Your task to perform on an android device: turn off picture-in-picture Image 0: 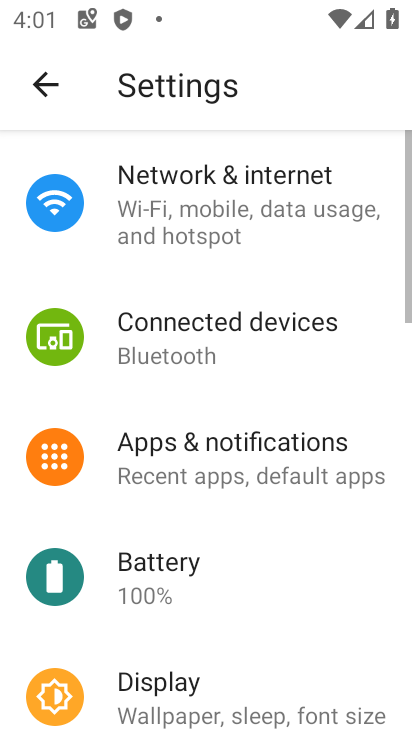
Step 0: press back button
Your task to perform on an android device: turn off picture-in-picture Image 1: 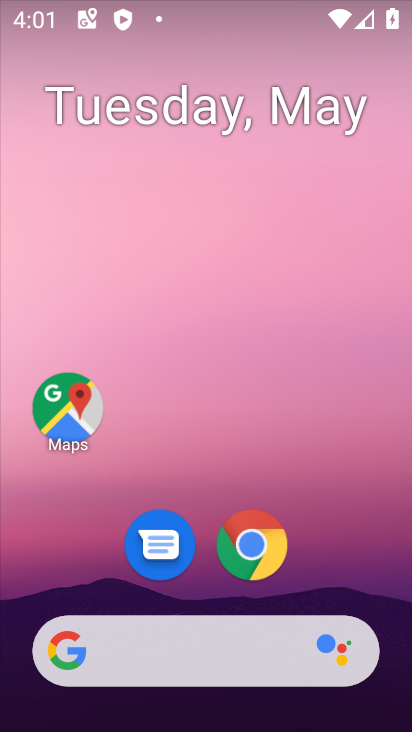
Step 1: click (250, 547)
Your task to perform on an android device: turn off picture-in-picture Image 2: 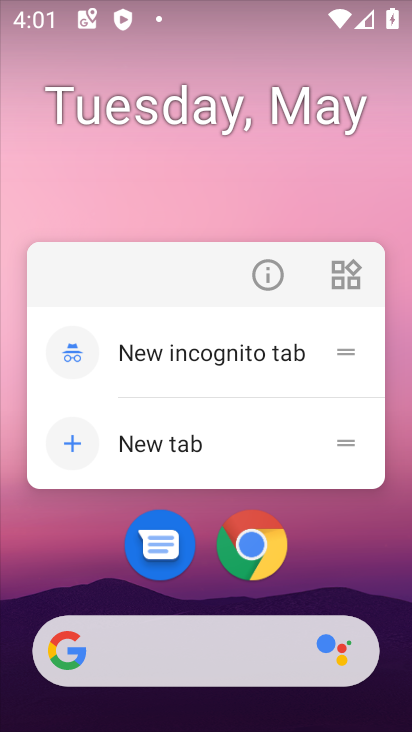
Step 2: click (271, 279)
Your task to perform on an android device: turn off picture-in-picture Image 3: 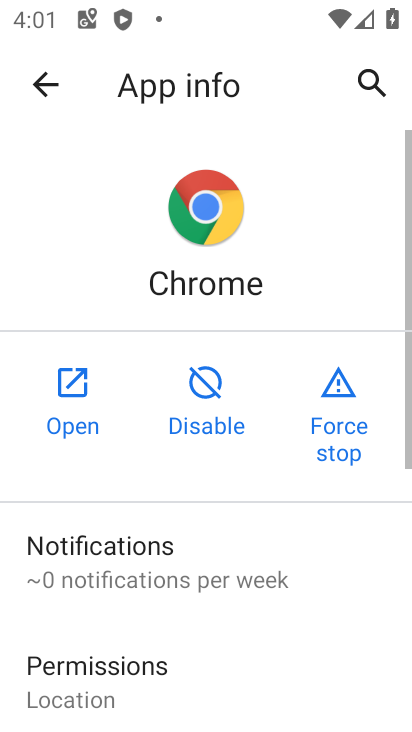
Step 3: drag from (186, 617) to (237, 446)
Your task to perform on an android device: turn off picture-in-picture Image 4: 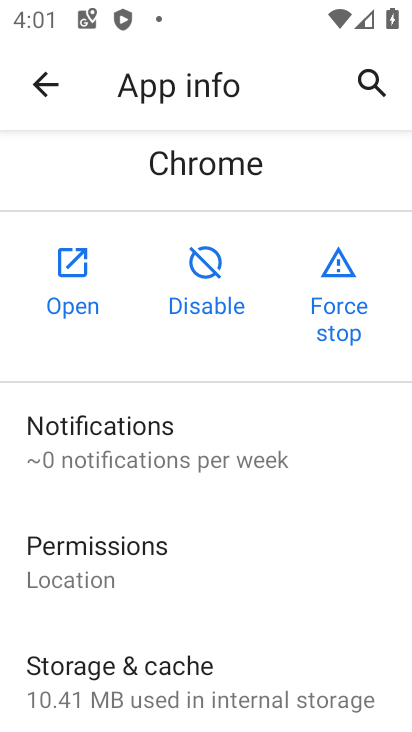
Step 4: drag from (166, 617) to (237, 467)
Your task to perform on an android device: turn off picture-in-picture Image 5: 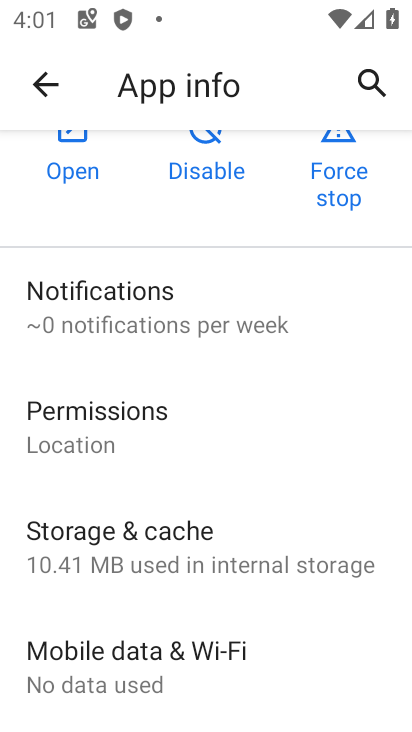
Step 5: drag from (146, 627) to (245, 462)
Your task to perform on an android device: turn off picture-in-picture Image 6: 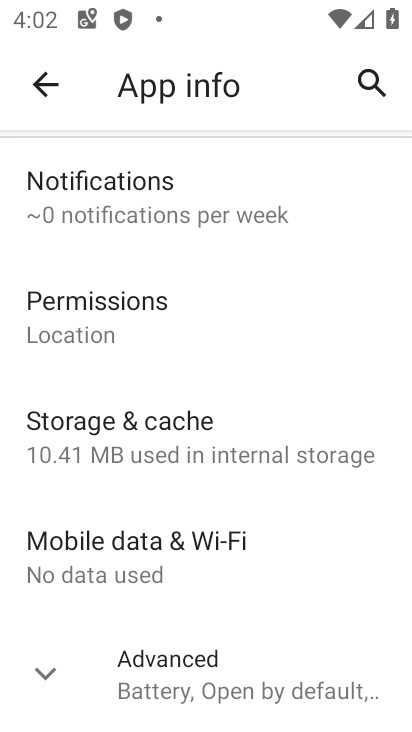
Step 6: click (183, 679)
Your task to perform on an android device: turn off picture-in-picture Image 7: 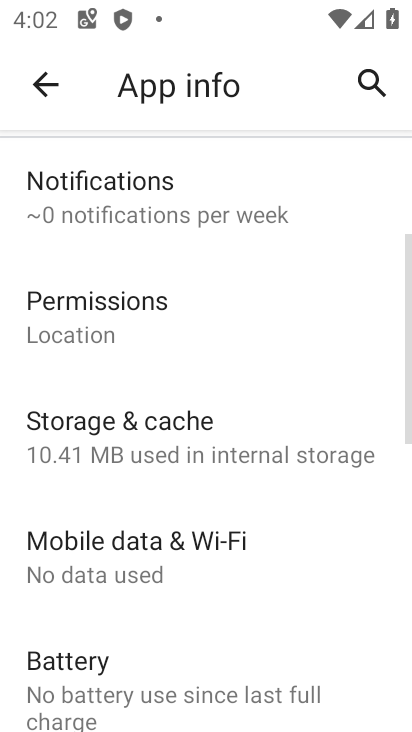
Step 7: drag from (173, 659) to (218, 512)
Your task to perform on an android device: turn off picture-in-picture Image 8: 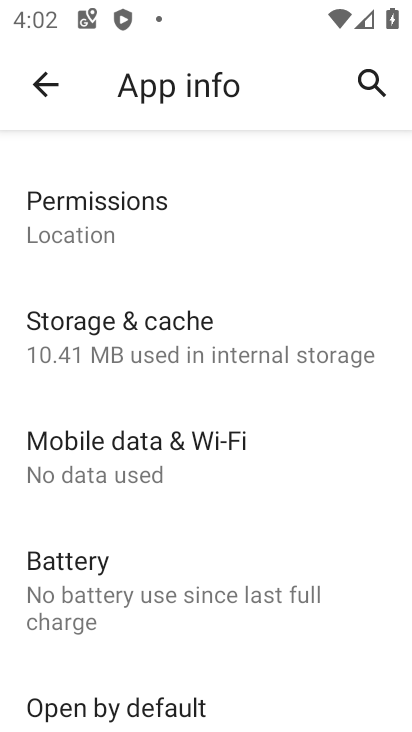
Step 8: drag from (146, 623) to (208, 512)
Your task to perform on an android device: turn off picture-in-picture Image 9: 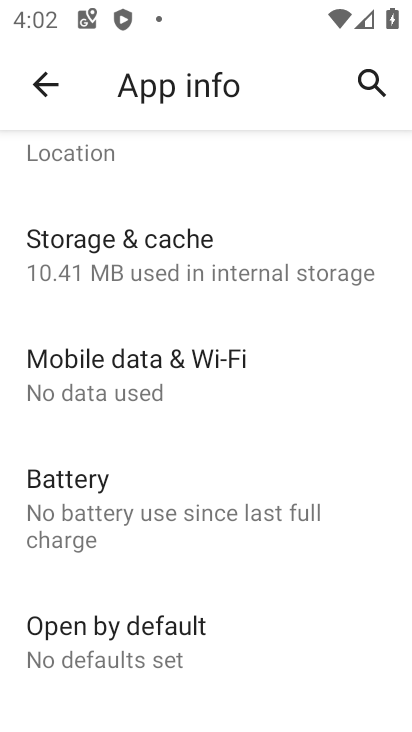
Step 9: drag from (147, 662) to (161, 575)
Your task to perform on an android device: turn off picture-in-picture Image 10: 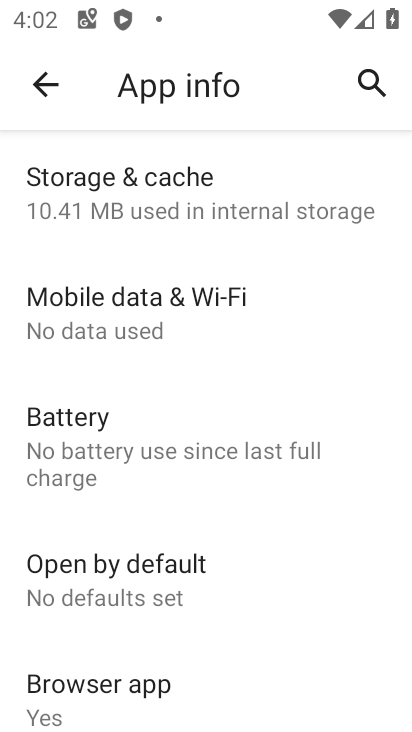
Step 10: drag from (135, 633) to (206, 500)
Your task to perform on an android device: turn off picture-in-picture Image 11: 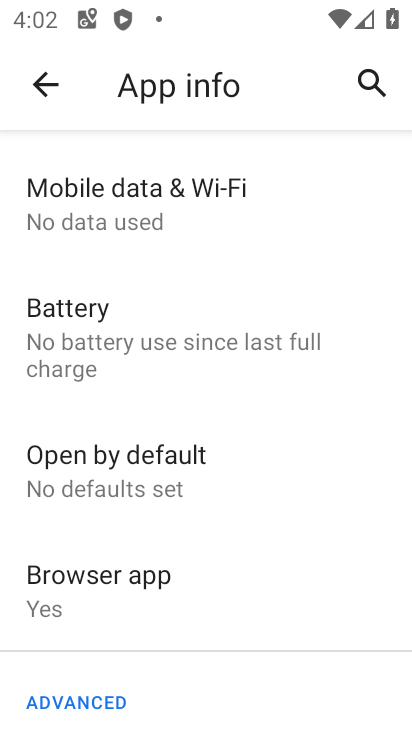
Step 11: drag from (158, 647) to (231, 494)
Your task to perform on an android device: turn off picture-in-picture Image 12: 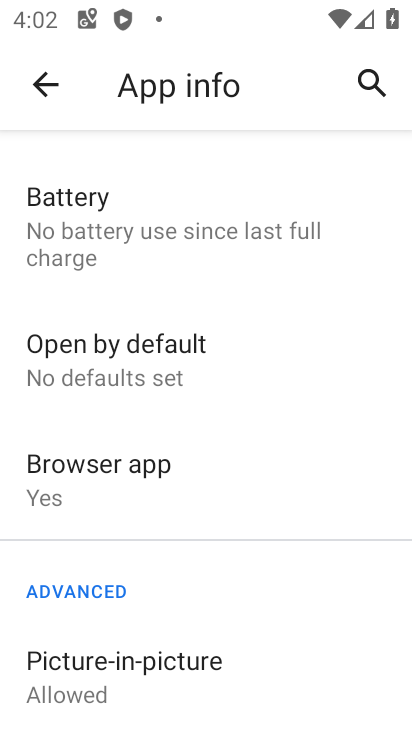
Step 12: click (150, 672)
Your task to perform on an android device: turn off picture-in-picture Image 13: 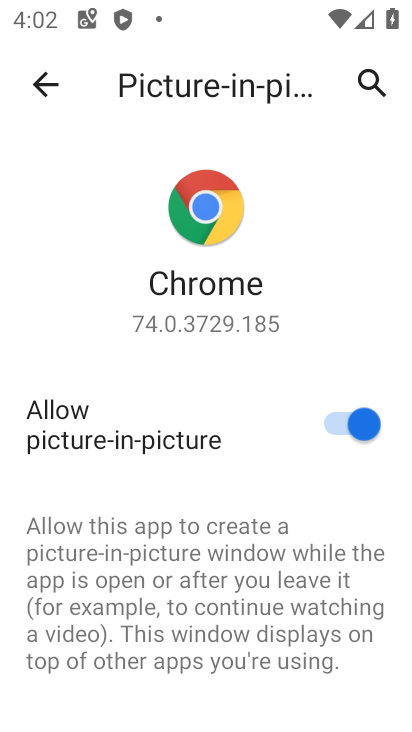
Step 13: click (329, 424)
Your task to perform on an android device: turn off picture-in-picture Image 14: 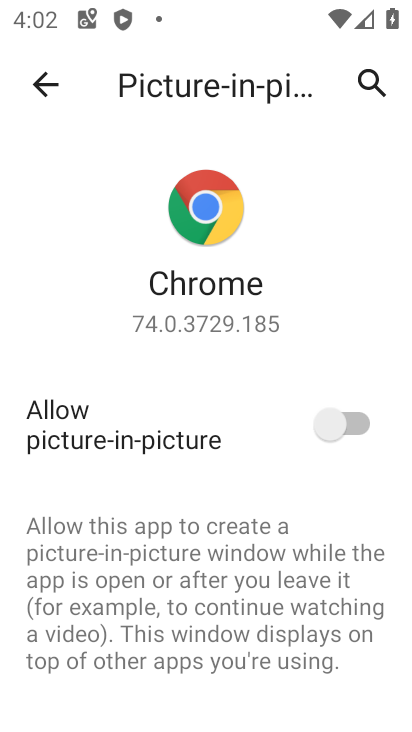
Step 14: task complete